Your task to perform on an android device: Open eBay Image 0: 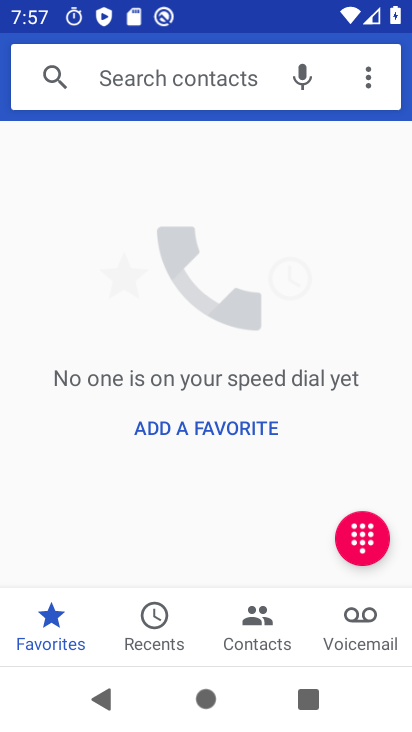
Step 0: press back button
Your task to perform on an android device: Open eBay Image 1: 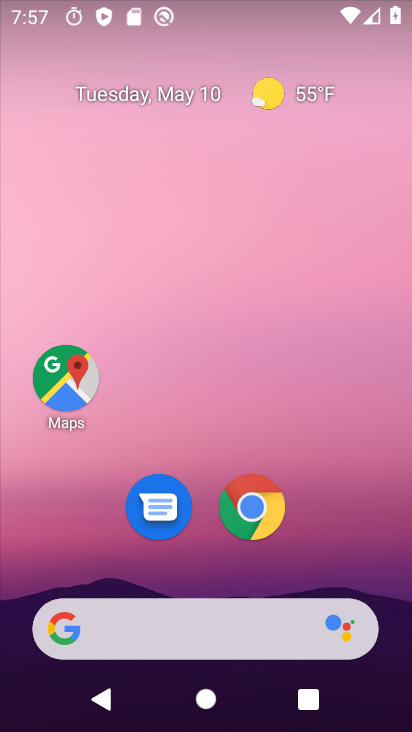
Step 1: click (256, 521)
Your task to perform on an android device: Open eBay Image 2: 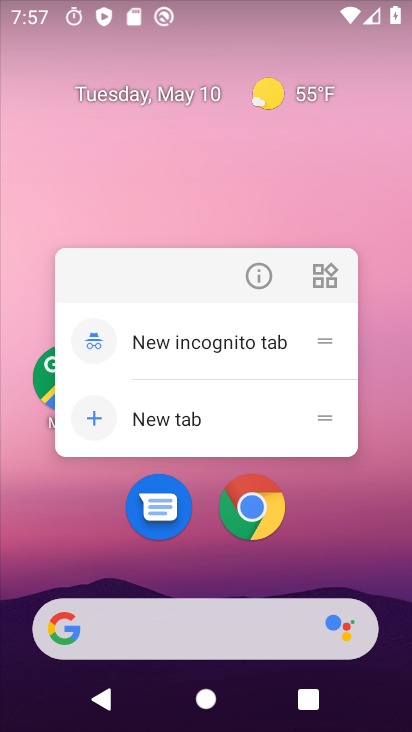
Step 2: click (263, 506)
Your task to perform on an android device: Open eBay Image 3: 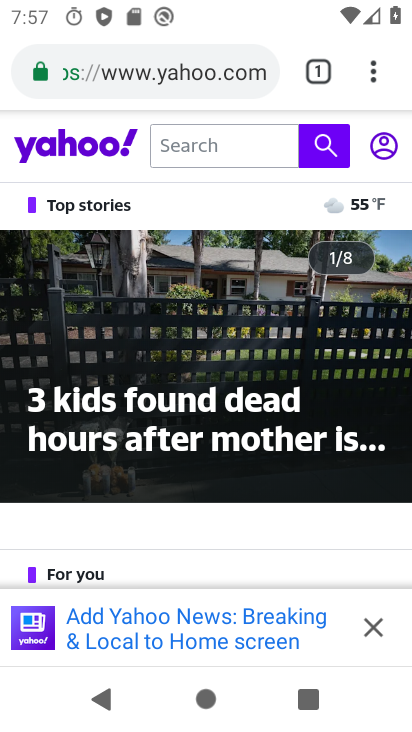
Step 3: drag from (374, 67) to (310, 148)
Your task to perform on an android device: Open eBay Image 4: 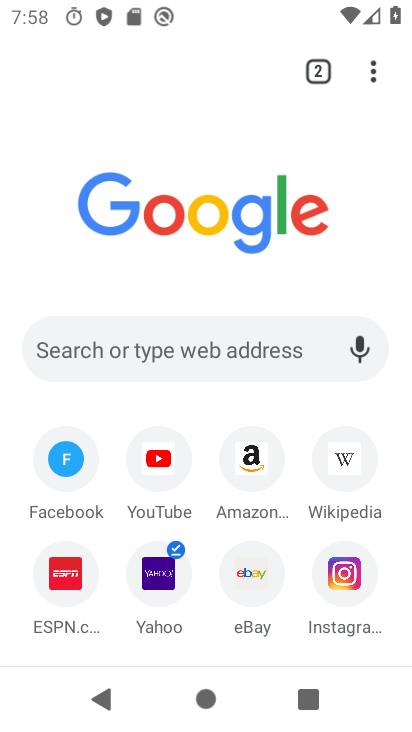
Step 4: click (260, 574)
Your task to perform on an android device: Open eBay Image 5: 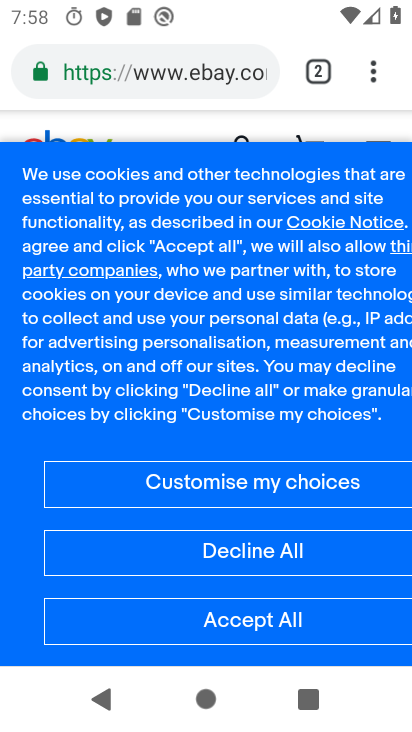
Step 5: click (308, 622)
Your task to perform on an android device: Open eBay Image 6: 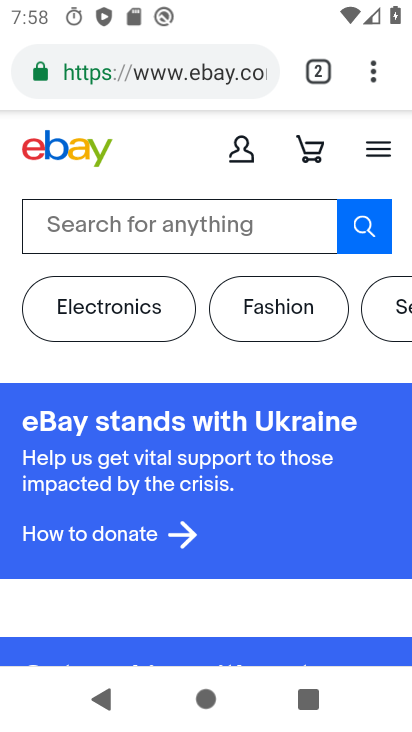
Step 6: task complete